Your task to perform on an android device: uninstall "Fetch Rewards" Image 0: 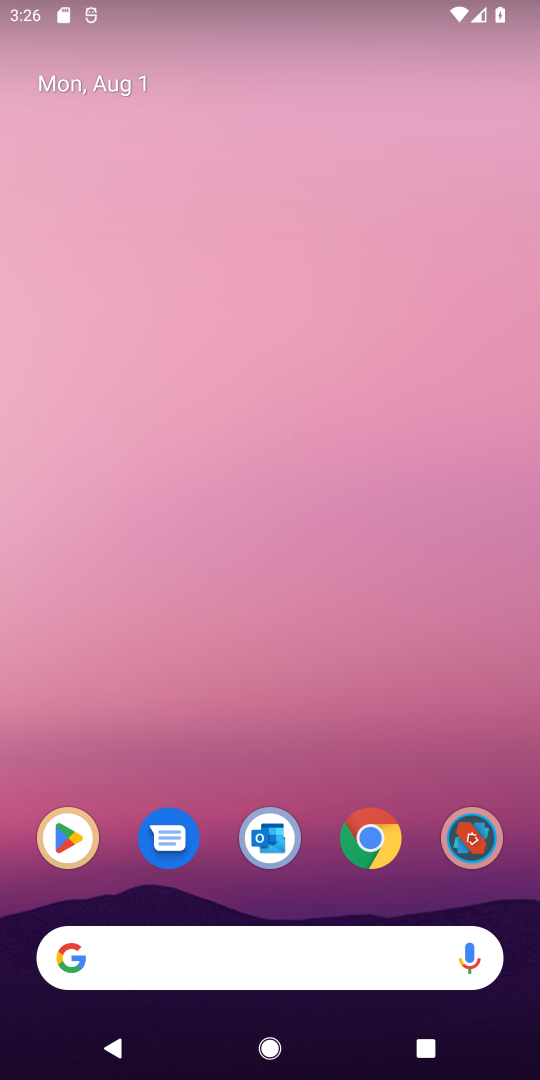
Step 0: click (58, 835)
Your task to perform on an android device: uninstall "Fetch Rewards" Image 1: 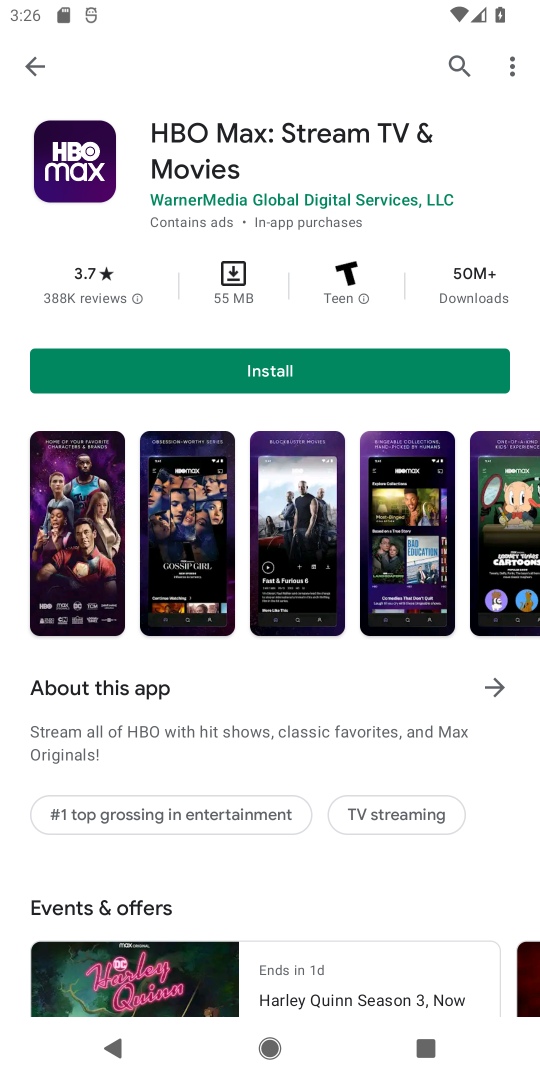
Step 1: click (454, 76)
Your task to perform on an android device: uninstall "Fetch Rewards" Image 2: 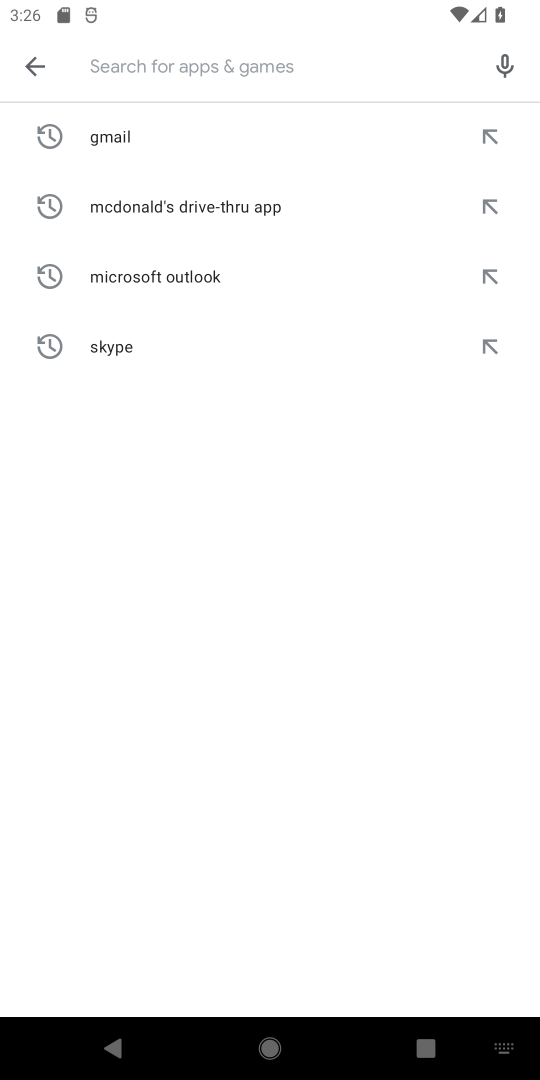
Step 2: type "Fetch Rewards"
Your task to perform on an android device: uninstall "Fetch Rewards" Image 3: 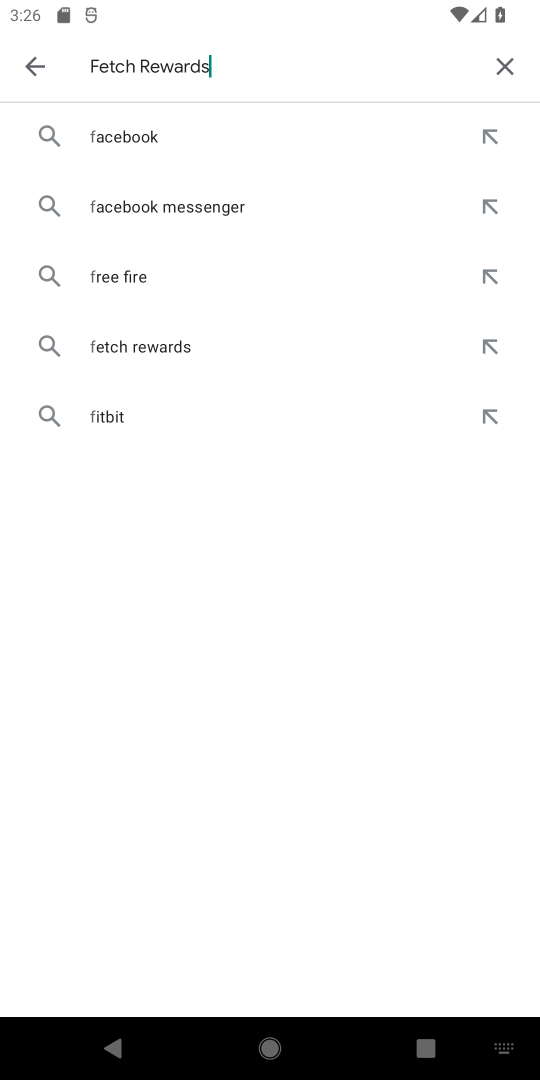
Step 3: type ""
Your task to perform on an android device: uninstall "Fetch Rewards" Image 4: 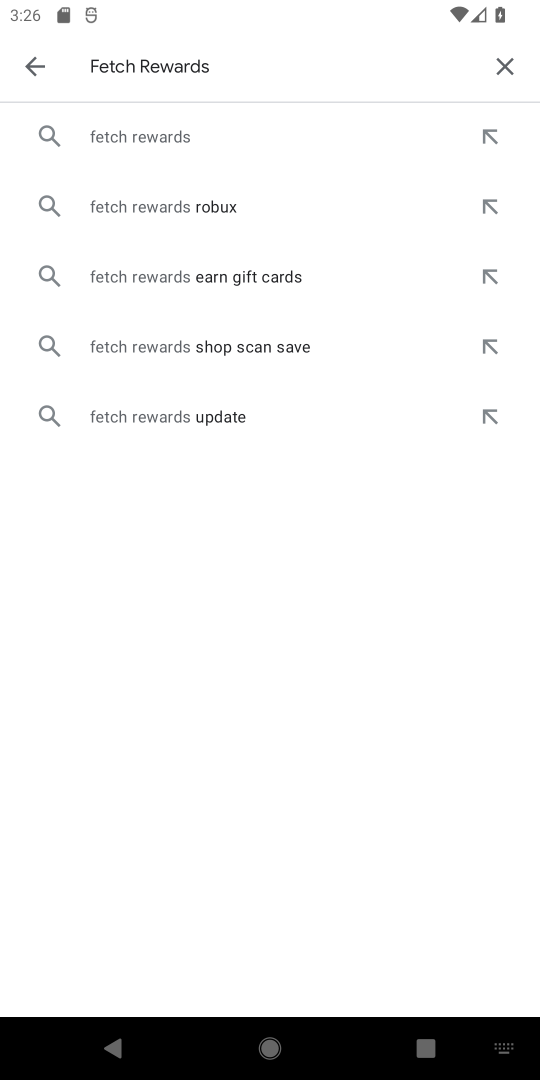
Step 4: click (161, 135)
Your task to perform on an android device: uninstall "Fetch Rewards" Image 5: 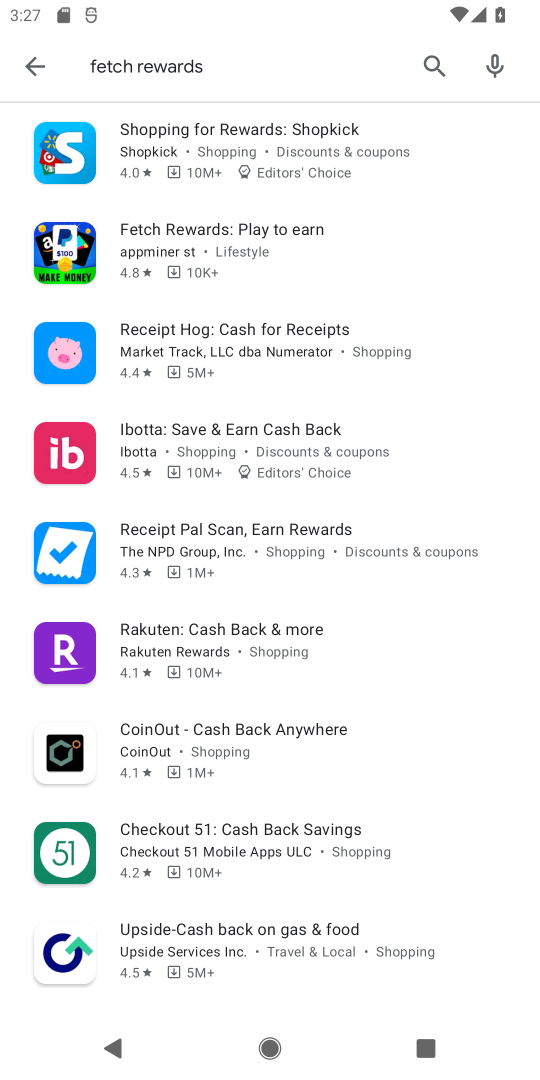
Step 5: click (207, 267)
Your task to perform on an android device: uninstall "Fetch Rewards" Image 6: 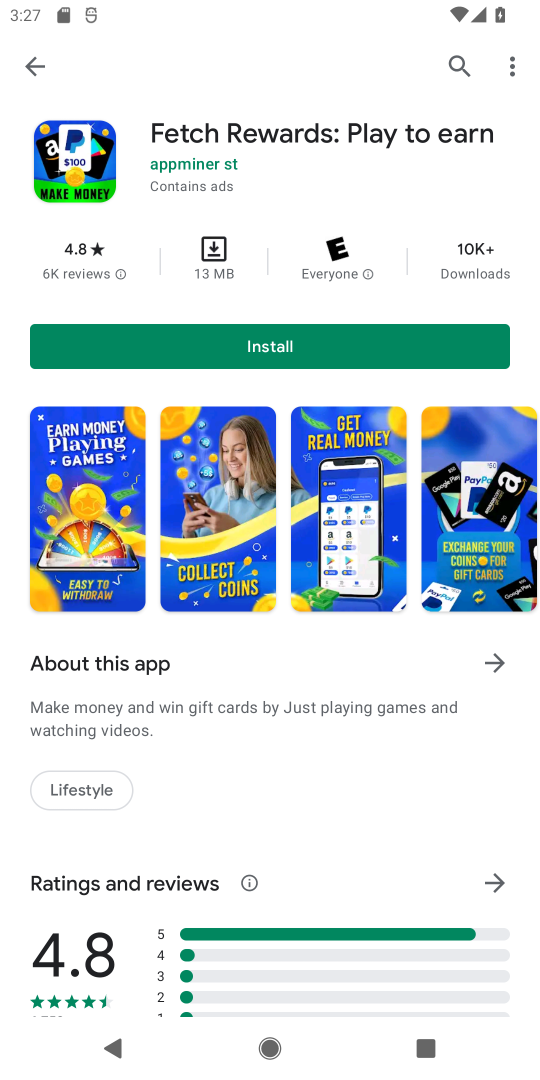
Step 6: task complete